Your task to perform on an android device: Open Google Image 0: 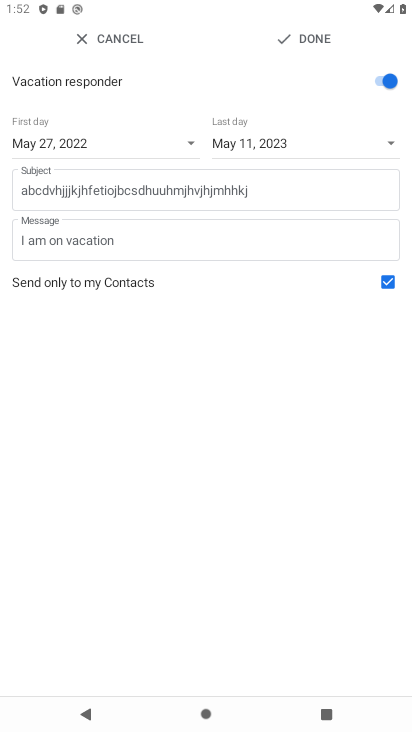
Step 0: press home button
Your task to perform on an android device: Open Google Image 1: 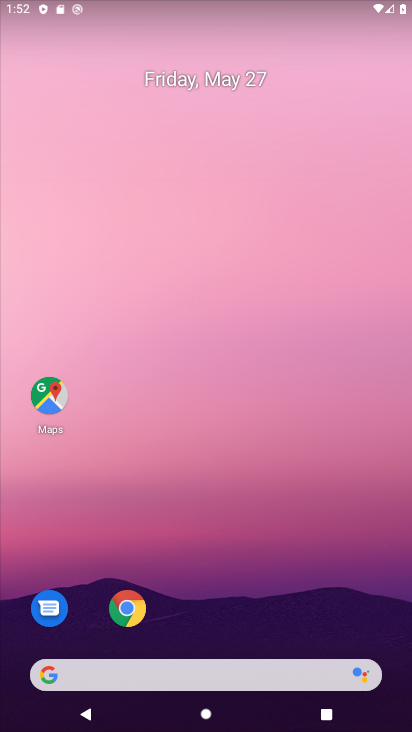
Step 1: drag from (288, 624) to (227, 166)
Your task to perform on an android device: Open Google Image 2: 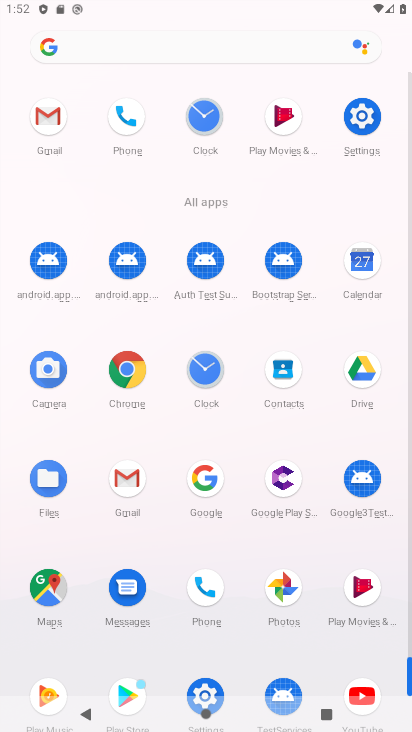
Step 2: click (208, 475)
Your task to perform on an android device: Open Google Image 3: 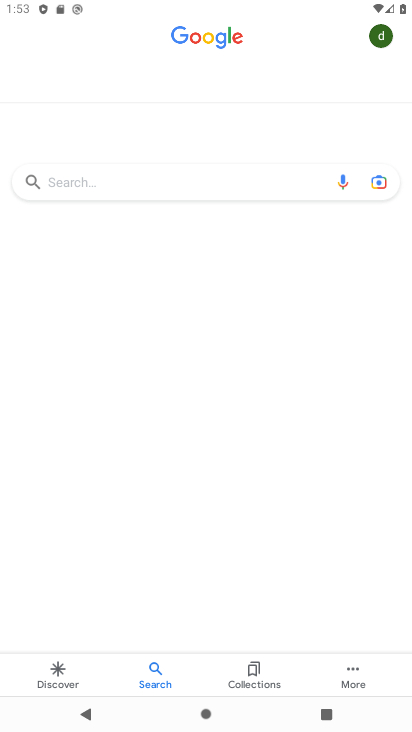
Step 3: task complete